Your task to perform on an android device: find which apps use the phone's location Image 0: 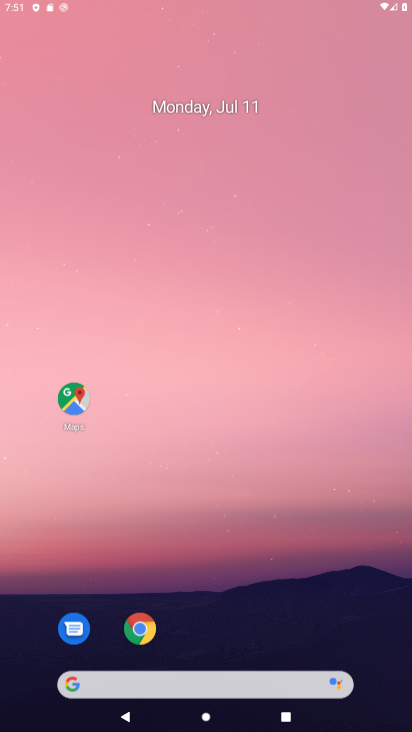
Step 0: drag from (259, 317) to (276, 131)
Your task to perform on an android device: find which apps use the phone's location Image 1: 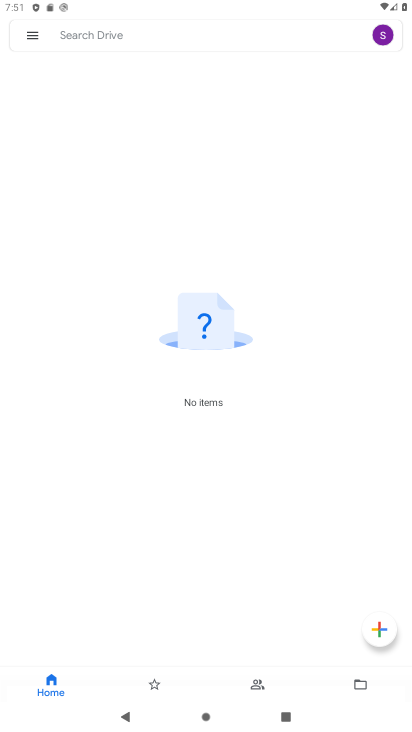
Step 1: press home button
Your task to perform on an android device: find which apps use the phone's location Image 2: 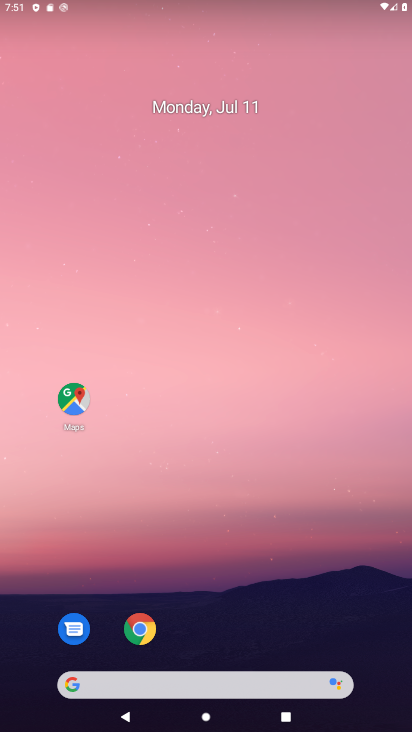
Step 2: drag from (213, 619) to (247, 133)
Your task to perform on an android device: find which apps use the phone's location Image 3: 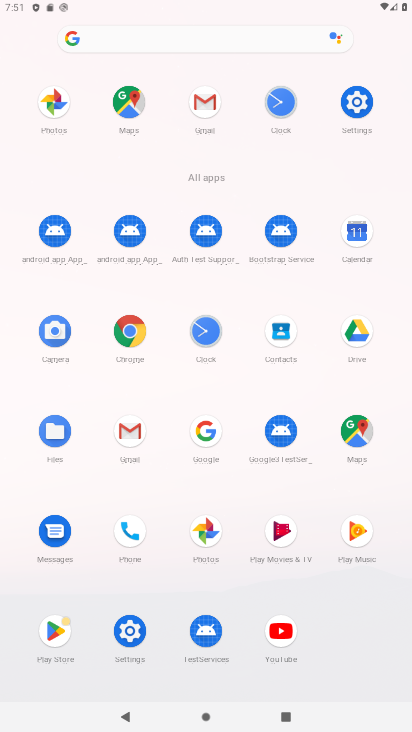
Step 3: click (360, 102)
Your task to perform on an android device: find which apps use the phone's location Image 4: 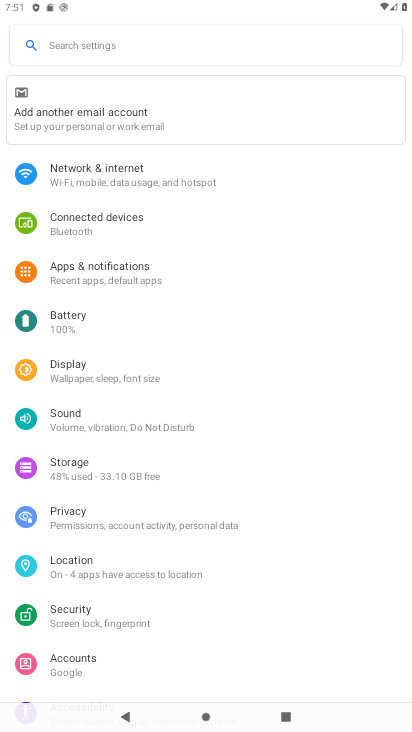
Step 4: click (83, 576)
Your task to perform on an android device: find which apps use the phone's location Image 5: 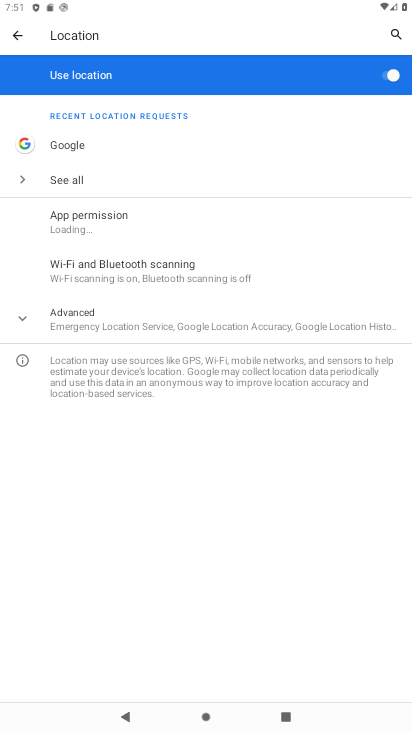
Step 5: click (118, 222)
Your task to perform on an android device: find which apps use the phone's location Image 6: 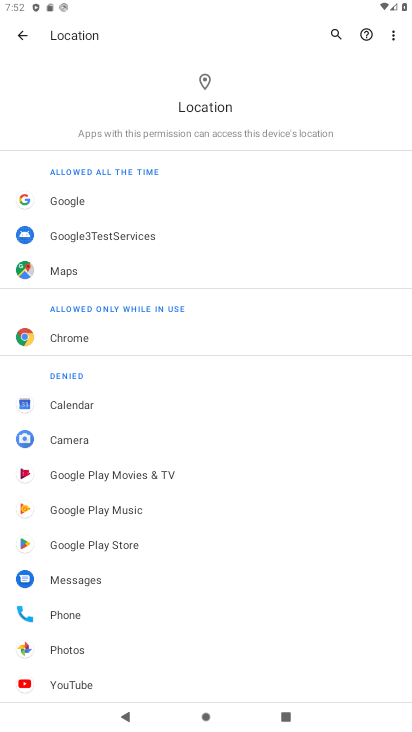
Step 6: task complete